Your task to perform on an android device: Open the calendar app, open the side menu, and click the "Day" option Image 0: 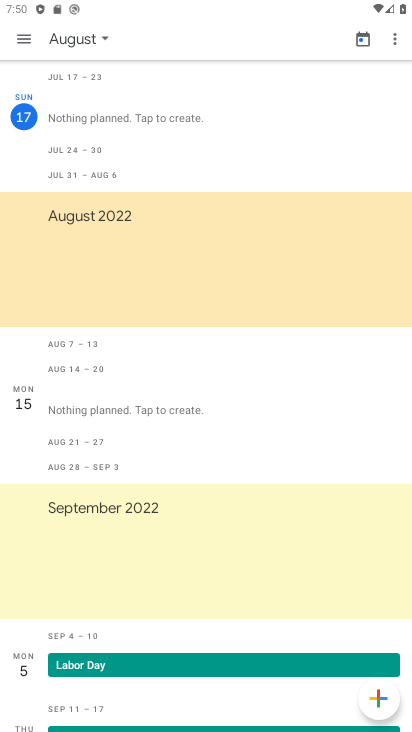
Step 0: press home button
Your task to perform on an android device: Open the calendar app, open the side menu, and click the "Day" option Image 1: 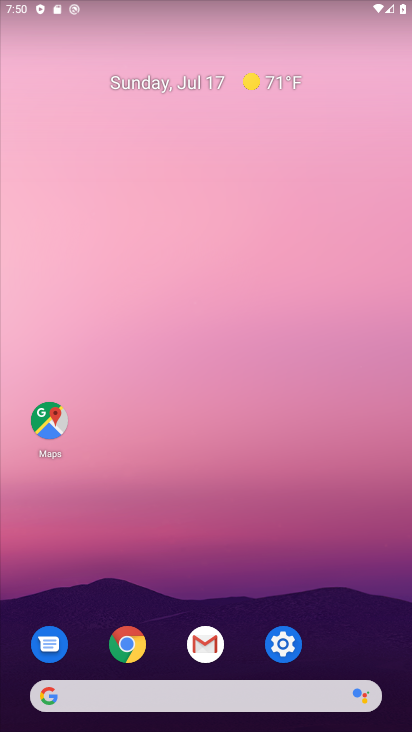
Step 1: drag from (224, 706) to (265, 129)
Your task to perform on an android device: Open the calendar app, open the side menu, and click the "Day" option Image 2: 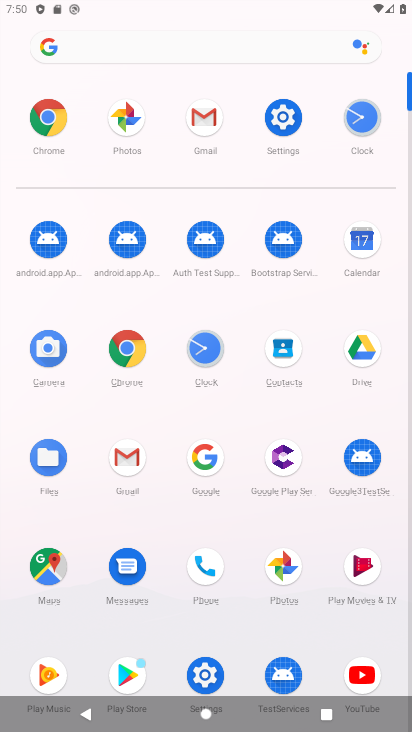
Step 2: click (364, 239)
Your task to perform on an android device: Open the calendar app, open the side menu, and click the "Day" option Image 3: 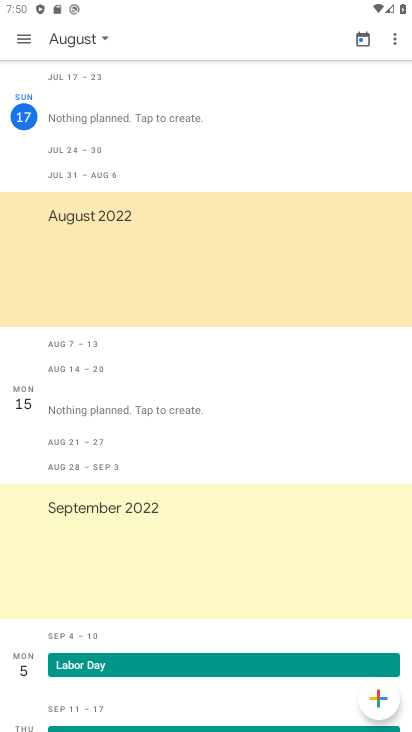
Step 3: click (20, 42)
Your task to perform on an android device: Open the calendar app, open the side menu, and click the "Day" option Image 4: 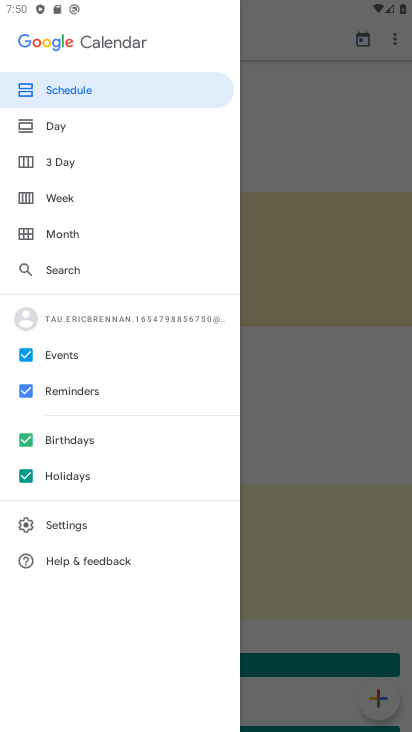
Step 4: click (80, 129)
Your task to perform on an android device: Open the calendar app, open the side menu, and click the "Day" option Image 5: 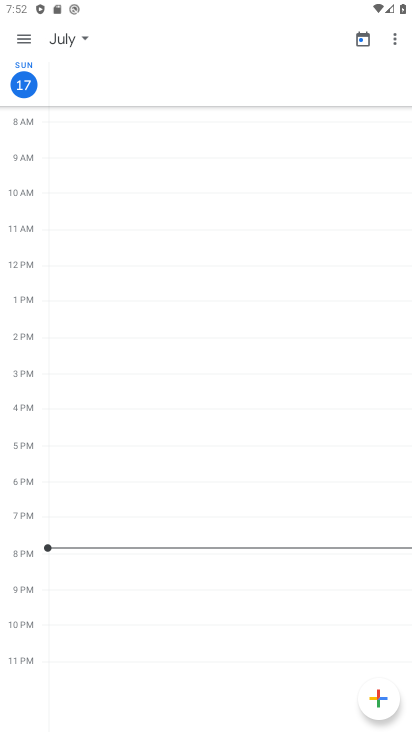
Step 5: task complete